Your task to perform on an android device: toggle pop-ups in chrome Image 0: 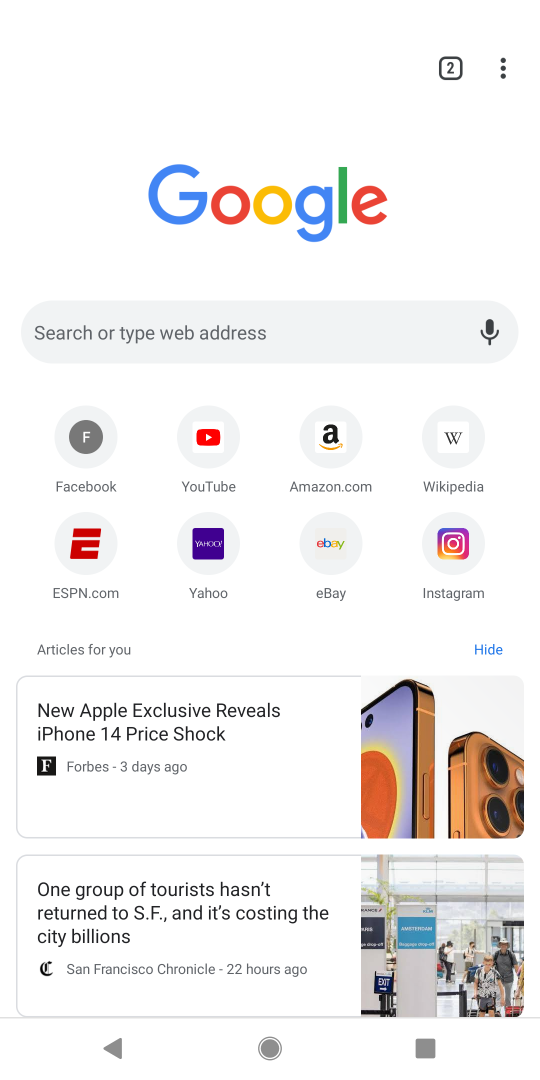
Step 0: press home button
Your task to perform on an android device: toggle pop-ups in chrome Image 1: 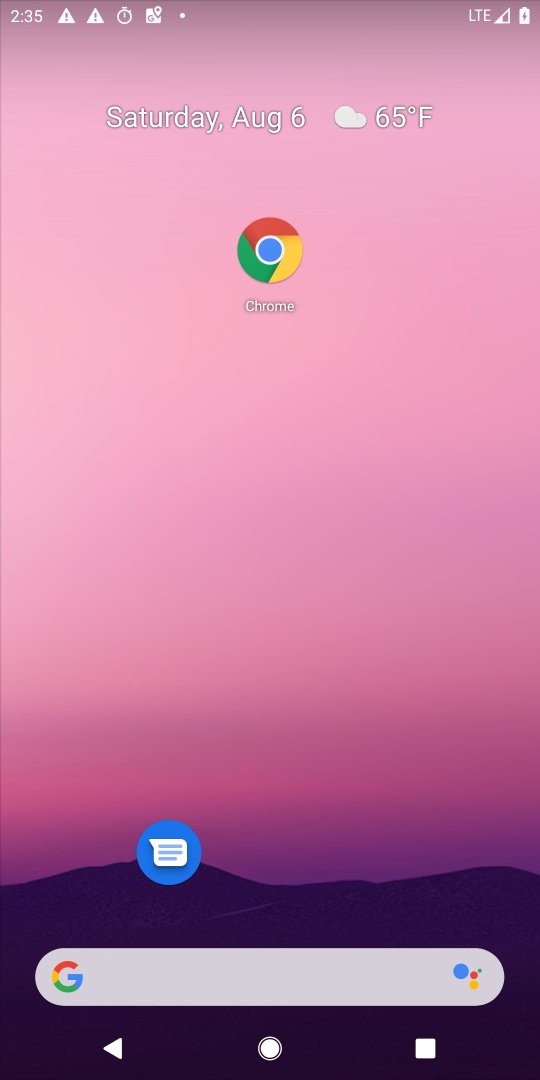
Step 1: drag from (341, 985) to (320, 213)
Your task to perform on an android device: toggle pop-ups in chrome Image 2: 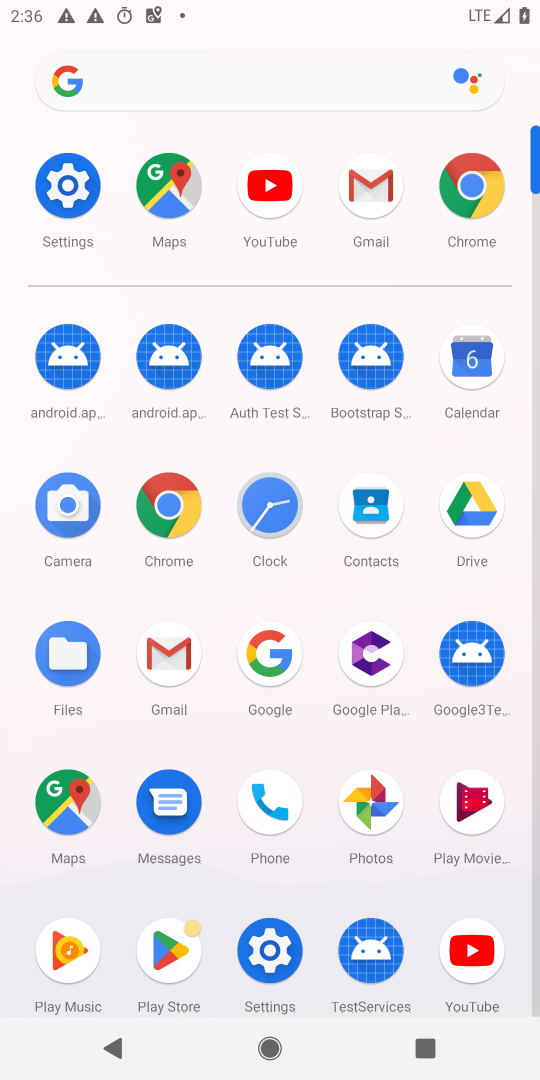
Step 2: click (465, 183)
Your task to perform on an android device: toggle pop-ups in chrome Image 3: 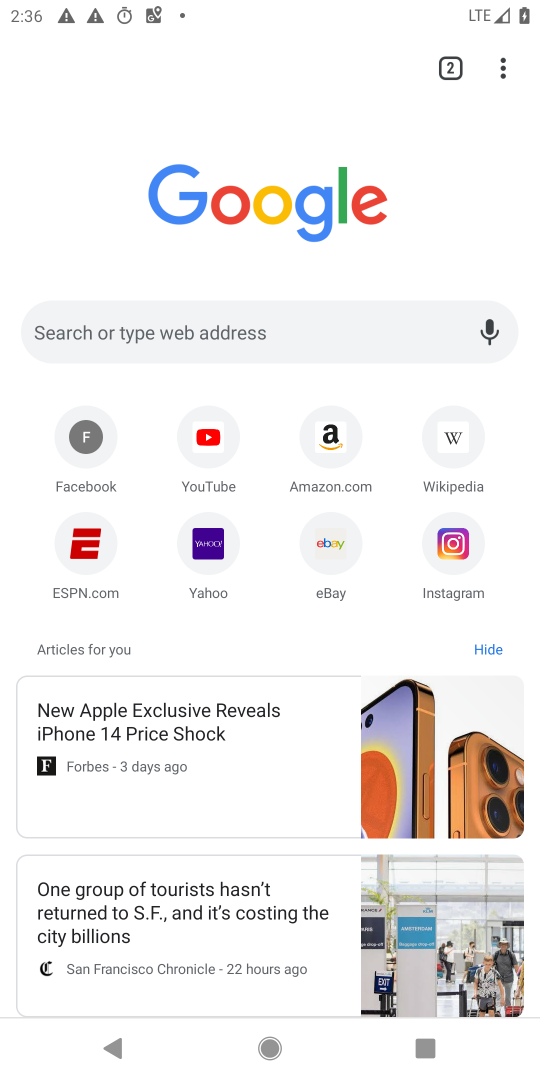
Step 3: click (496, 63)
Your task to perform on an android device: toggle pop-ups in chrome Image 4: 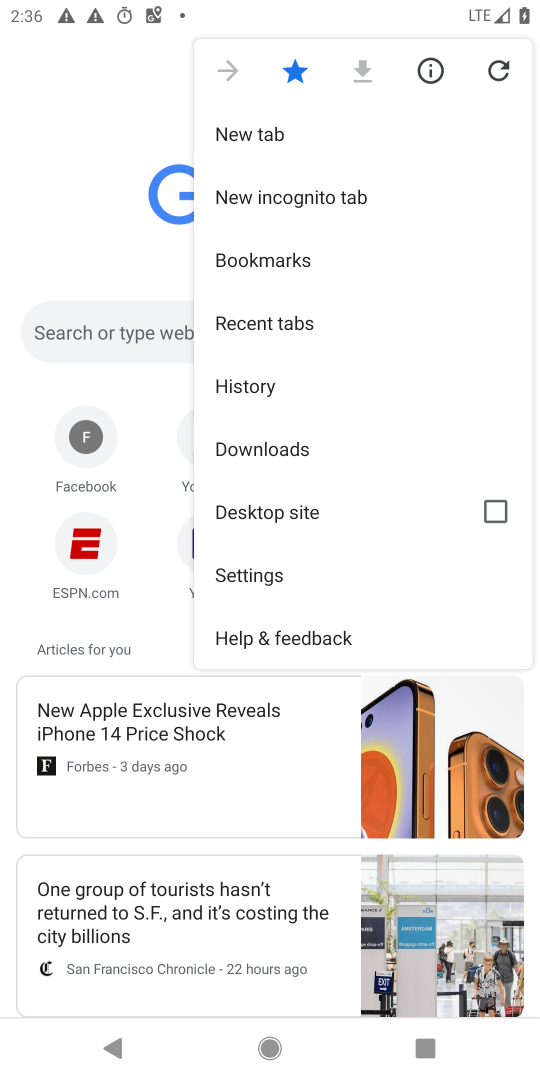
Step 4: click (249, 564)
Your task to perform on an android device: toggle pop-ups in chrome Image 5: 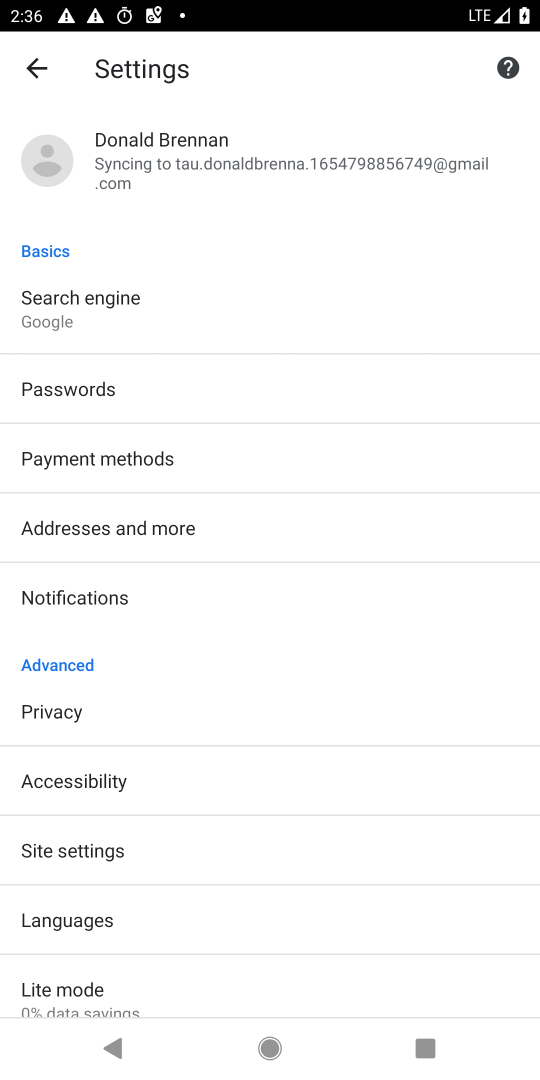
Step 5: click (99, 849)
Your task to perform on an android device: toggle pop-ups in chrome Image 6: 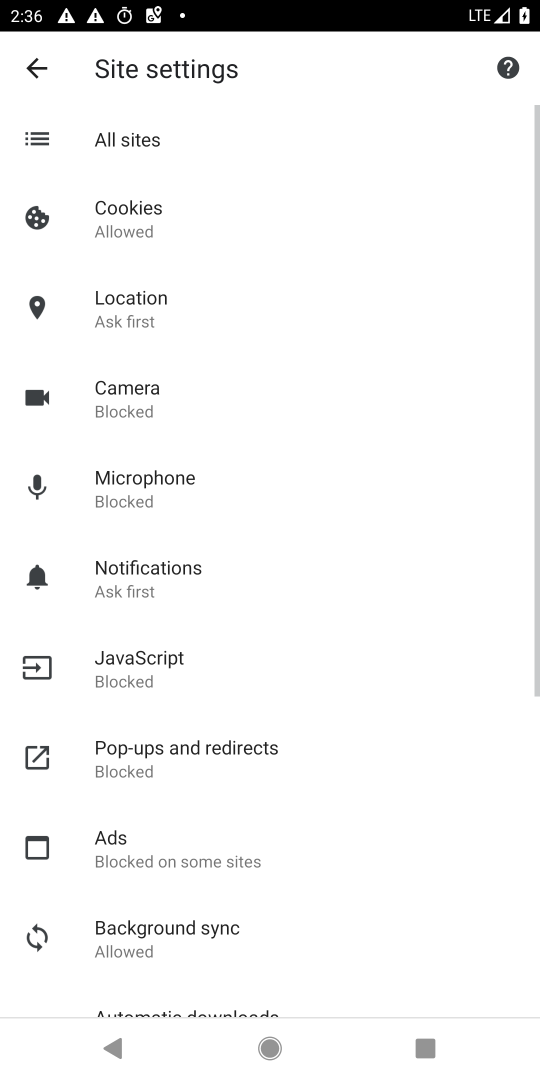
Step 6: click (144, 753)
Your task to perform on an android device: toggle pop-ups in chrome Image 7: 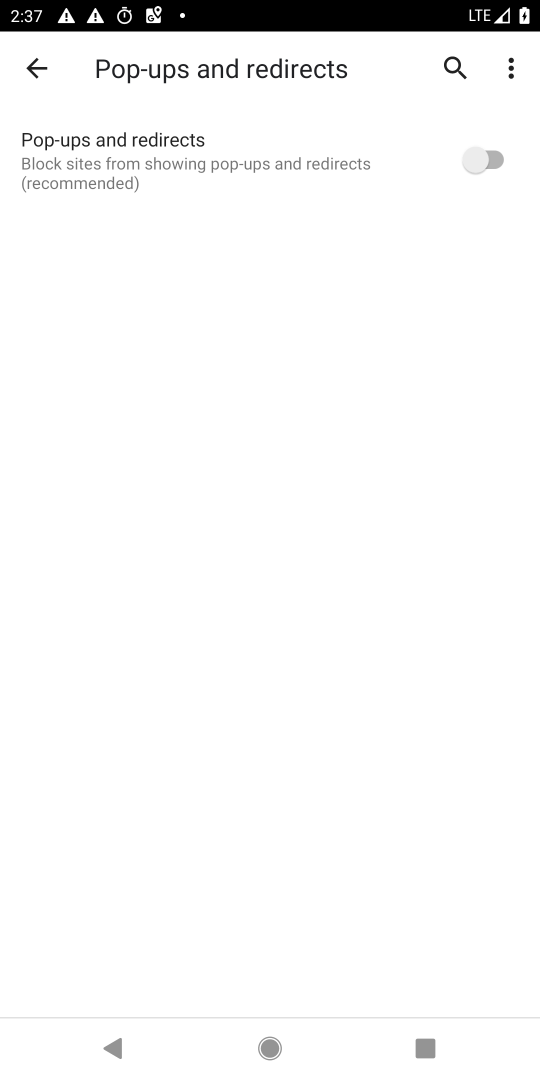
Step 7: task complete